Your task to perform on an android device: turn on priority inbox in the gmail app Image 0: 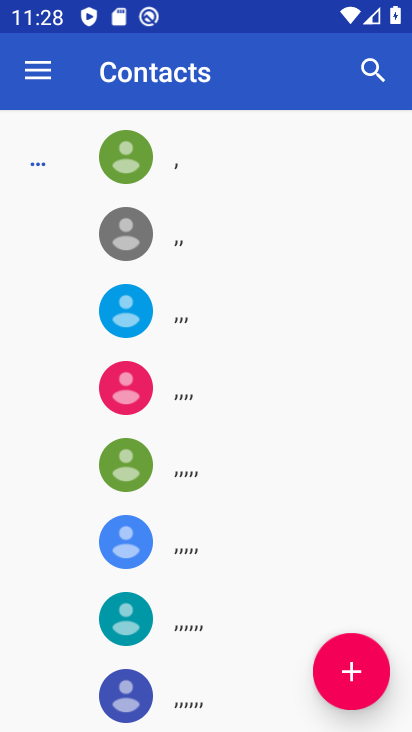
Step 0: task complete